Your task to perform on an android device: turn on improve location accuracy Image 0: 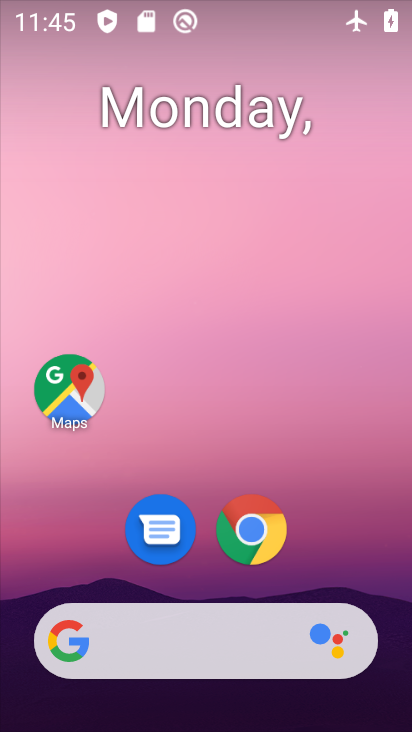
Step 0: drag from (208, 701) to (210, 93)
Your task to perform on an android device: turn on improve location accuracy Image 1: 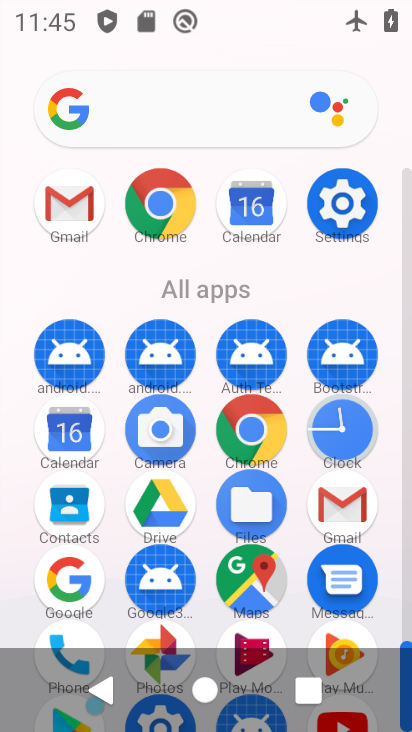
Step 1: click (346, 197)
Your task to perform on an android device: turn on improve location accuracy Image 2: 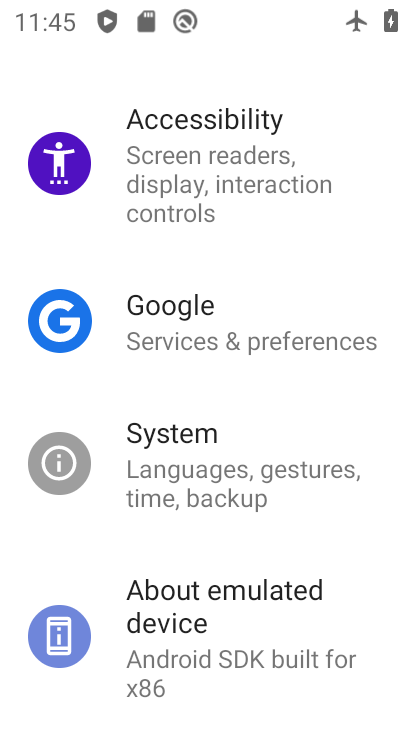
Step 2: drag from (209, 225) to (212, 645)
Your task to perform on an android device: turn on improve location accuracy Image 3: 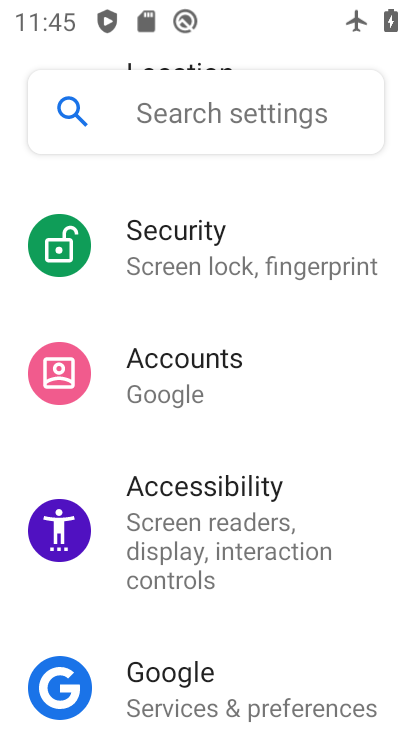
Step 3: drag from (224, 193) to (215, 600)
Your task to perform on an android device: turn on improve location accuracy Image 4: 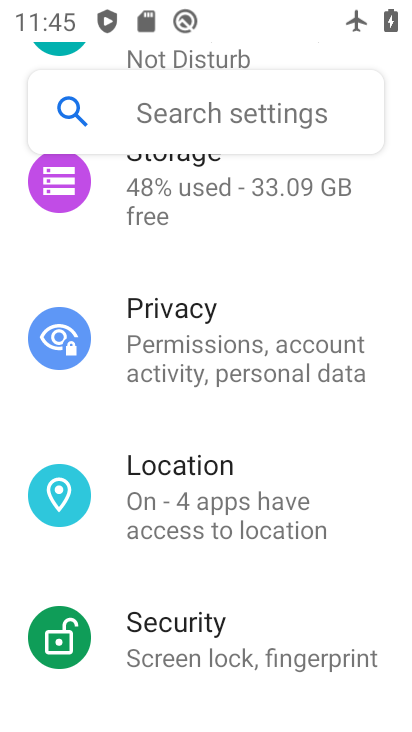
Step 4: click (168, 494)
Your task to perform on an android device: turn on improve location accuracy Image 5: 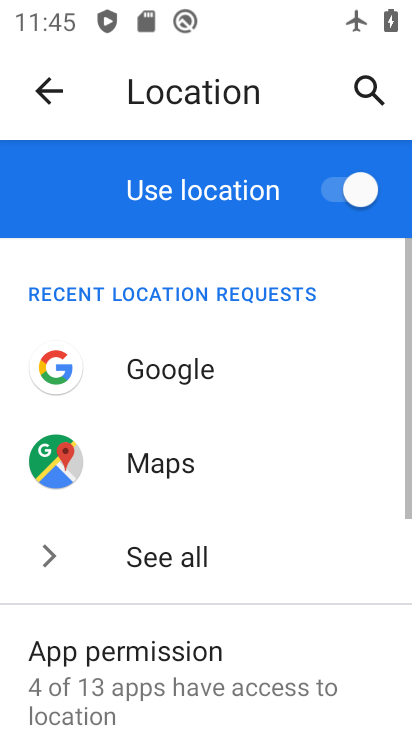
Step 5: drag from (182, 668) to (190, 243)
Your task to perform on an android device: turn on improve location accuracy Image 6: 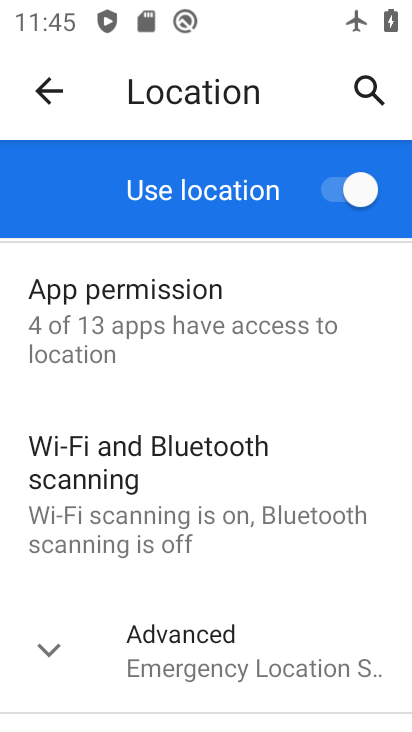
Step 6: click (194, 646)
Your task to perform on an android device: turn on improve location accuracy Image 7: 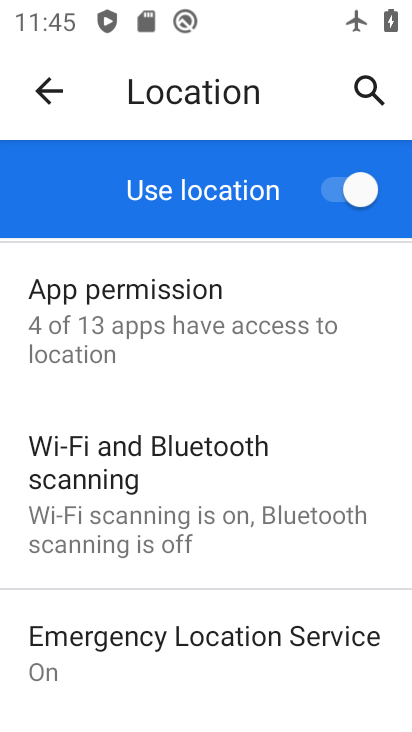
Step 7: drag from (237, 663) to (238, 334)
Your task to perform on an android device: turn on improve location accuracy Image 8: 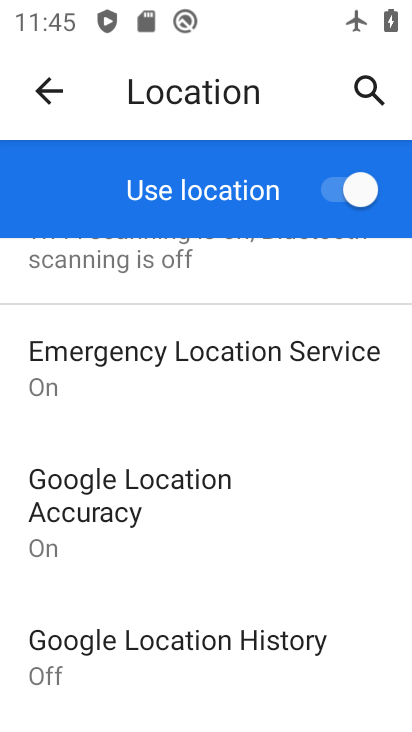
Step 8: click (126, 495)
Your task to perform on an android device: turn on improve location accuracy Image 9: 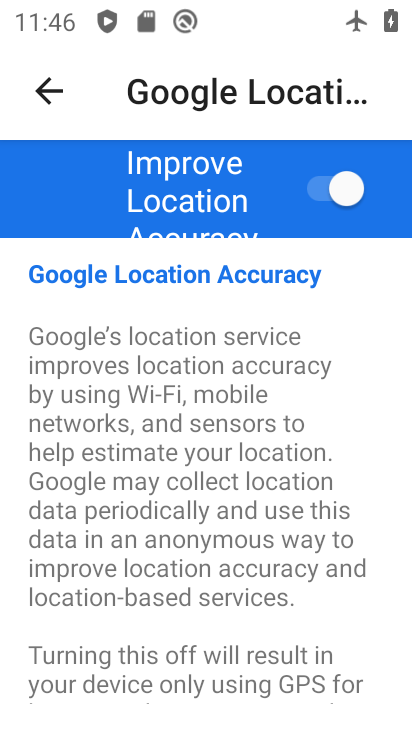
Step 9: task complete